Your task to perform on an android device: open a new tab in the chrome app Image 0: 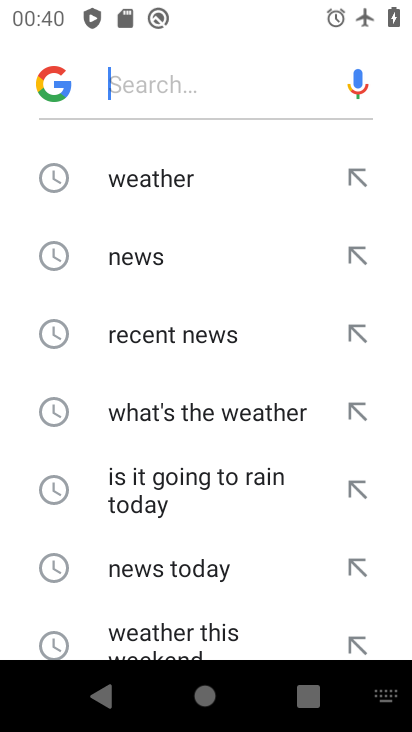
Step 0: press home button
Your task to perform on an android device: open a new tab in the chrome app Image 1: 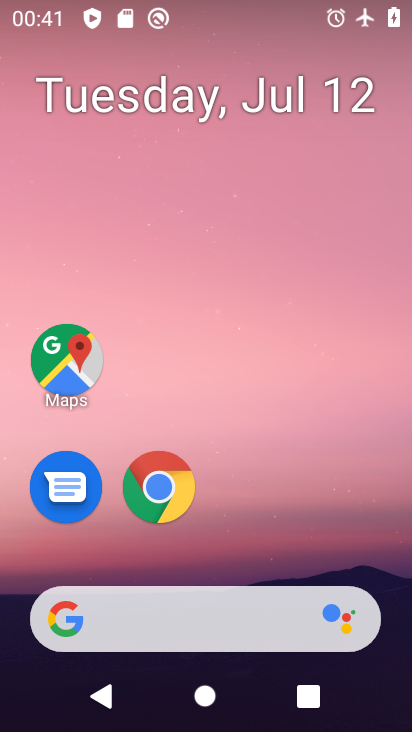
Step 1: drag from (272, 538) to (316, 147)
Your task to perform on an android device: open a new tab in the chrome app Image 2: 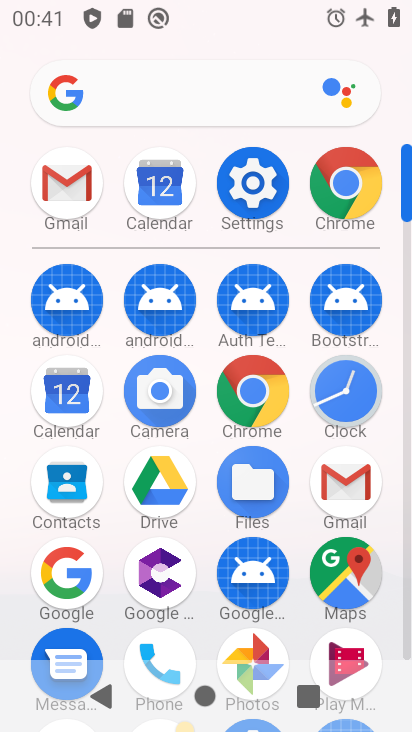
Step 2: click (262, 381)
Your task to perform on an android device: open a new tab in the chrome app Image 3: 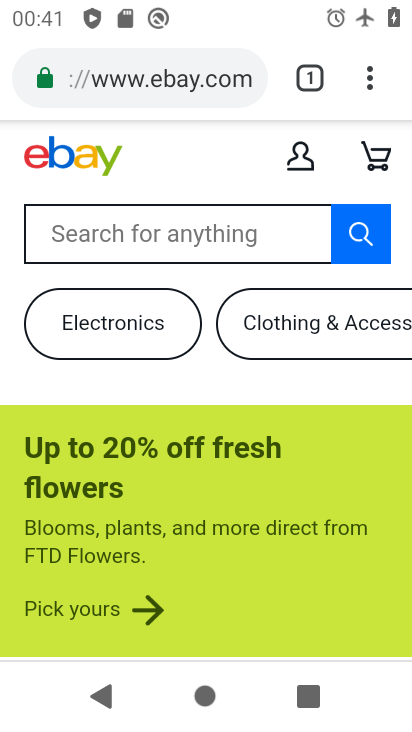
Step 3: click (365, 82)
Your task to perform on an android device: open a new tab in the chrome app Image 4: 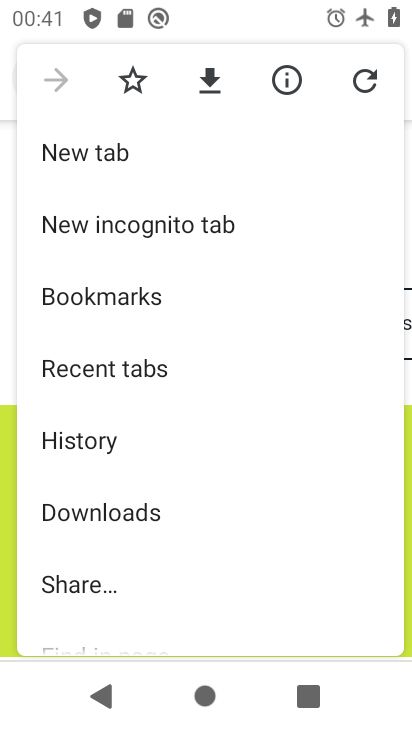
Step 4: click (117, 157)
Your task to perform on an android device: open a new tab in the chrome app Image 5: 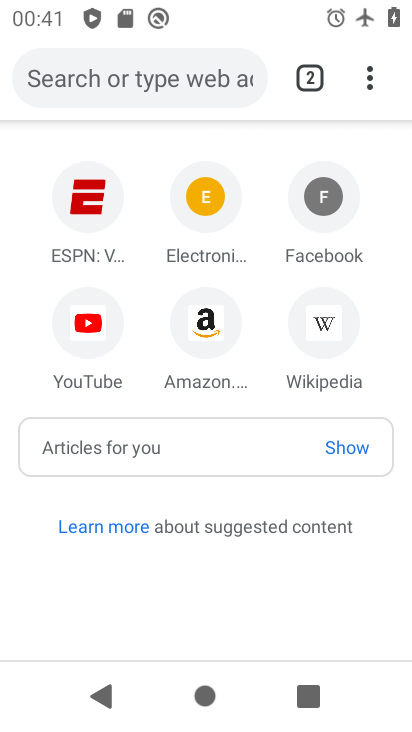
Step 5: task complete